Your task to perform on an android device: What's on my calendar today? Image 0: 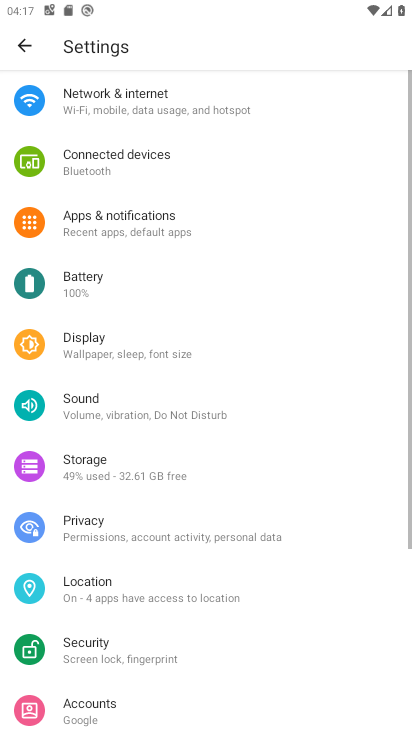
Step 0: press home button
Your task to perform on an android device: What's on my calendar today? Image 1: 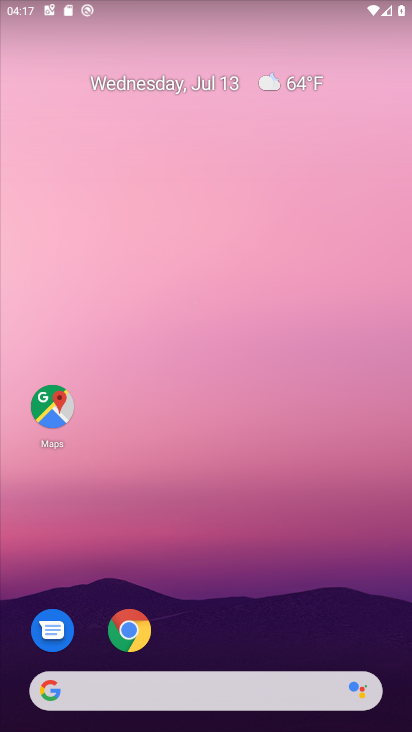
Step 1: click (166, 101)
Your task to perform on an android device: What's on my calendar today? Image 2: 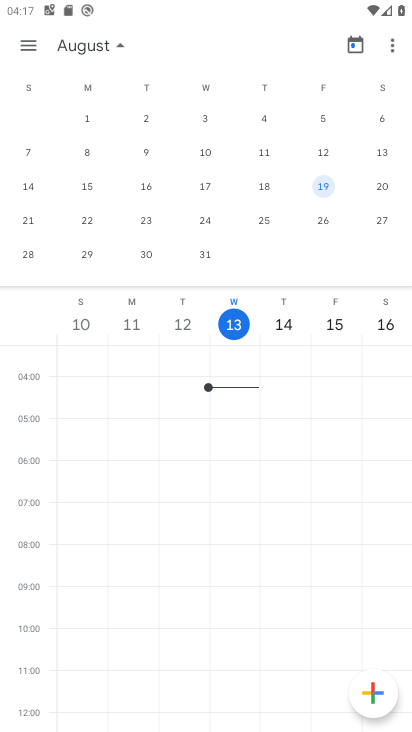
Step 2: task complete